Your task to perform on an android device: Open calendar and show me the fourth week of next month Image 0: 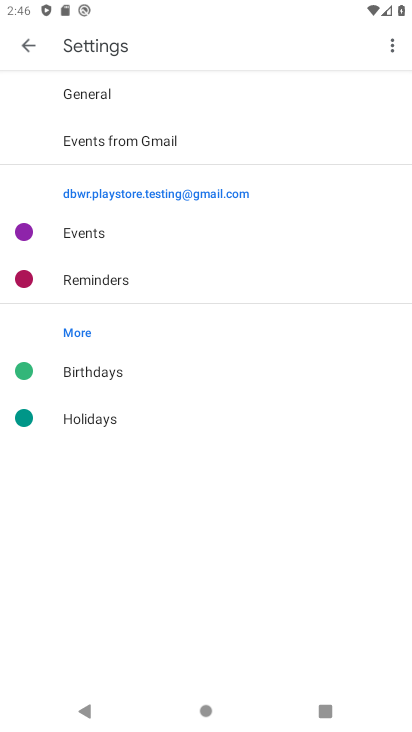
Step 0: press home button
Your task to perform on an android device: Open calendar and show me the fourth week of next month Image 1: 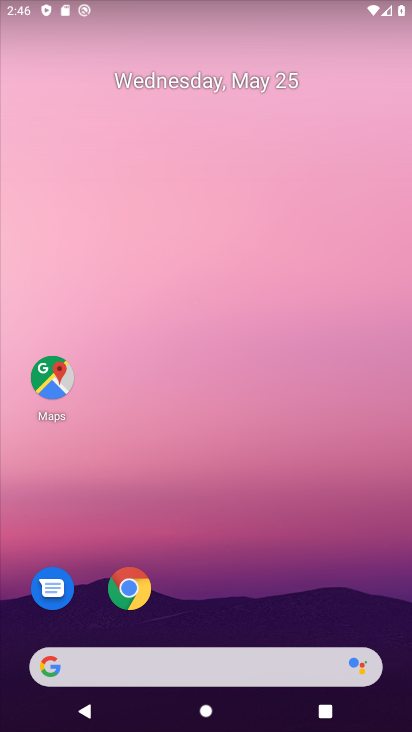
Step 1: drag from (238, 620) to (355, 61)
Your task to perform on an android device: Open calendar and show me the fourth week of next month Image 2: 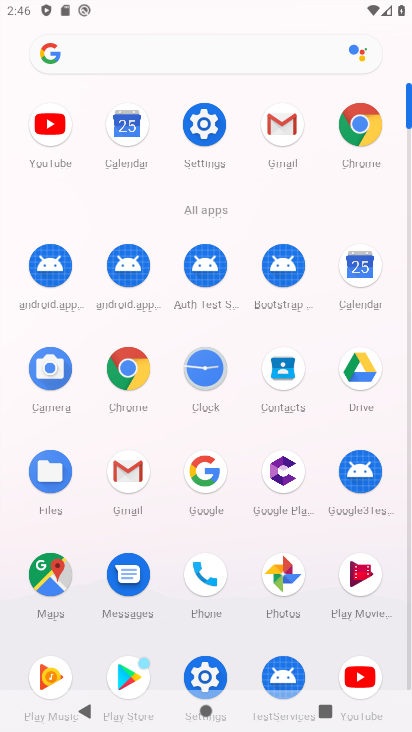
Step 2: click (360, 257)
Your task to perform on an android device: Open calendar and show me the fourth week of next month Image 3: 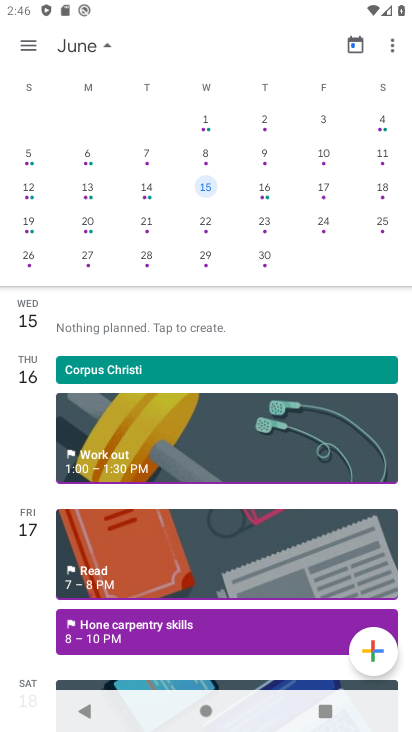
Step 3: click (199, 224)
Your task to perform on an android device: Open calendar and show me the fourth week of next month Image 4: 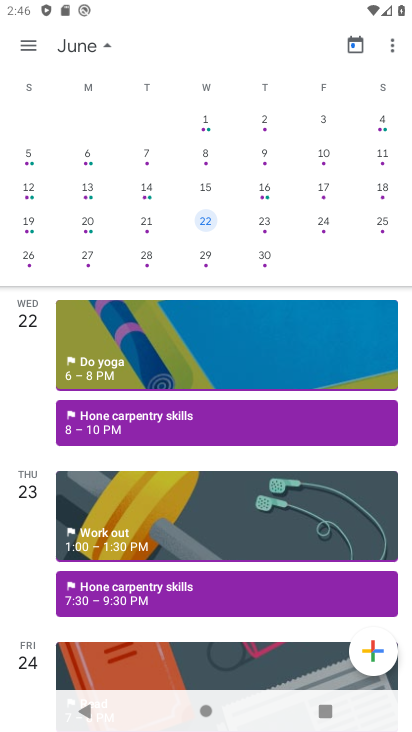
Step 4: task complete